Your task to perform on an android device: Open calendar and show me the third week of next month Image 0: 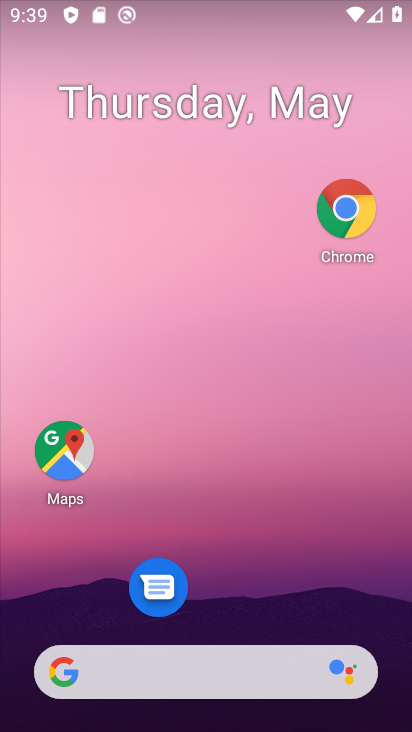
Step 0: drag from (242, 606) to (233, 27)
Your task to perform on an android device: Open calendar and show me the third week of next month Image 1: 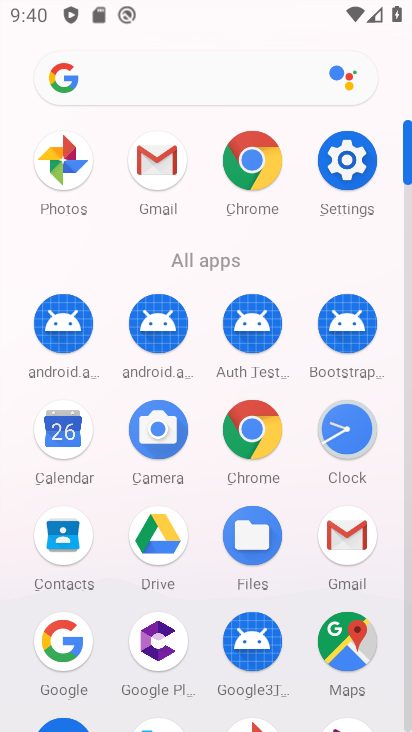
Step 1: click (61, 481)
Your task to perform on an android device: Open calendar and show me the third week of next month Image 2: 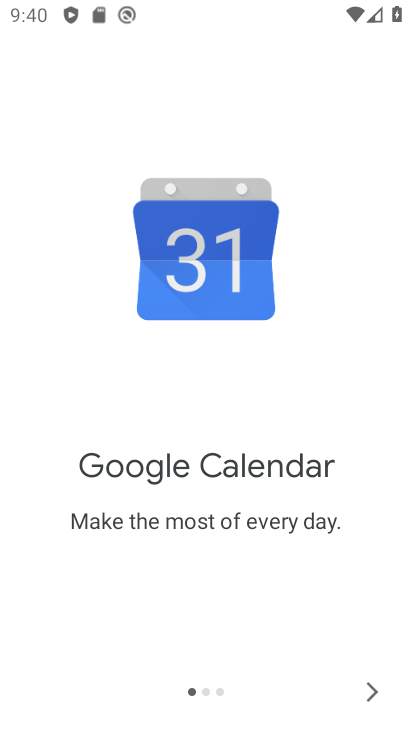
Step 2: click (376, 693)
Your task to perform on an android device: Open calendar and show me the third week of next month Image 3: 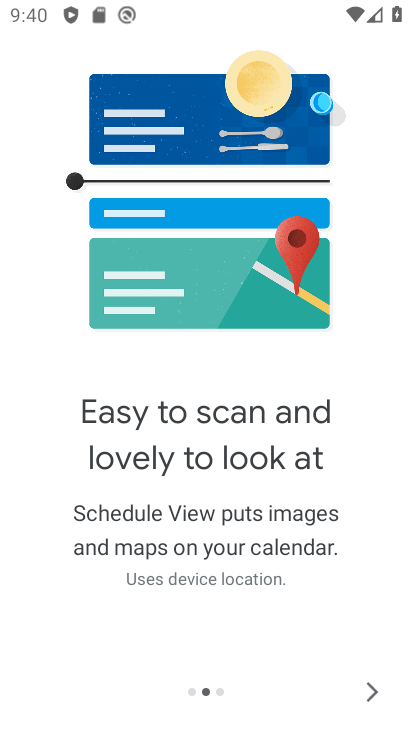
Step 3: click (376, 693)
Your task to perform on an android device: Open calendar and show me the third week of next month Image 4: 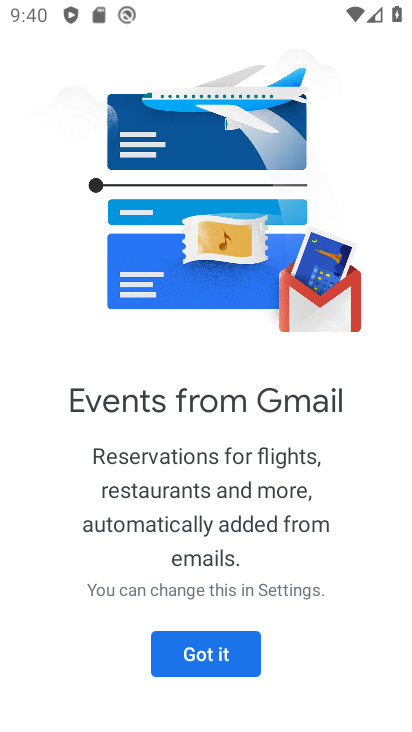
Step 4: click (215, 652)
Your task to perform on an android device: Open calendar and show me the third week of next month Image 5: 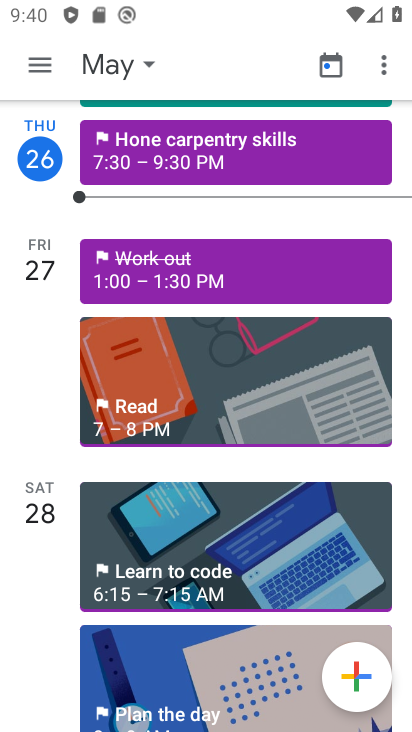
Step 5: click (44, 59)
Your task to perform on an android device: Open calendar and show me the third week of next month Image 6: 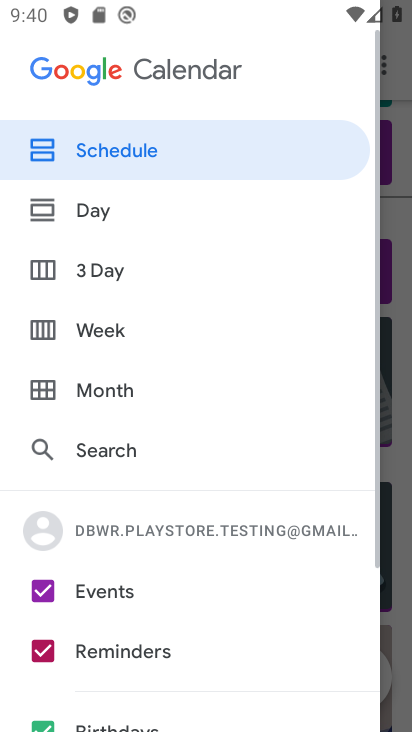
Step 6: click (96, 333)
Your task to perform on an android device: Open calendar and show me the third week of next month Image 7: 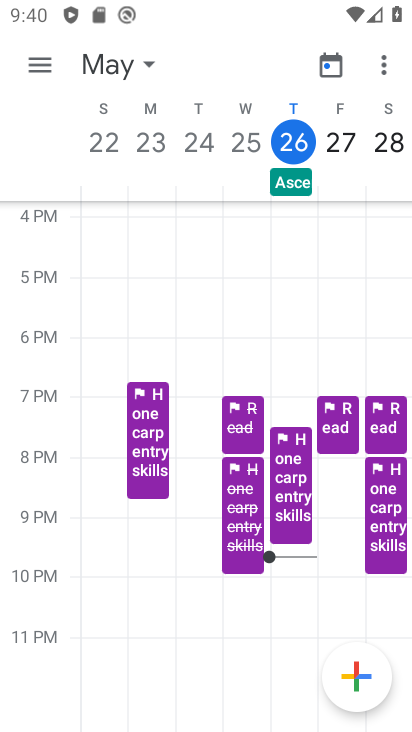
Step 7: click (117, 72)
Your task to perform on an android device: Open calendar and show me the third week of next month Image 8: 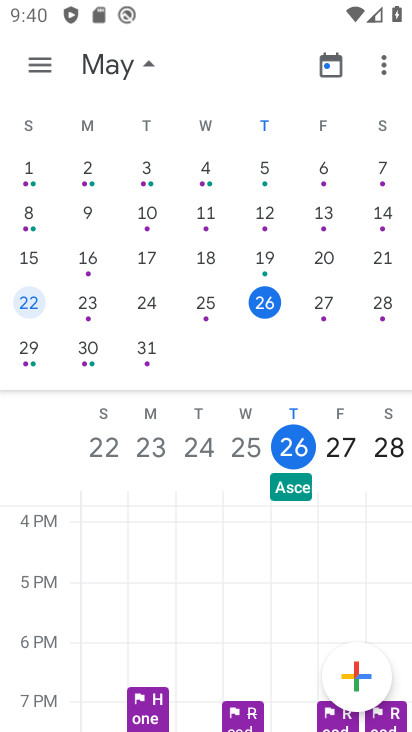
Step 8: drag from (334, 258) to (75, 238)
Your task to perform on an android device: Open calendar and show me the third week of next month Image 9: 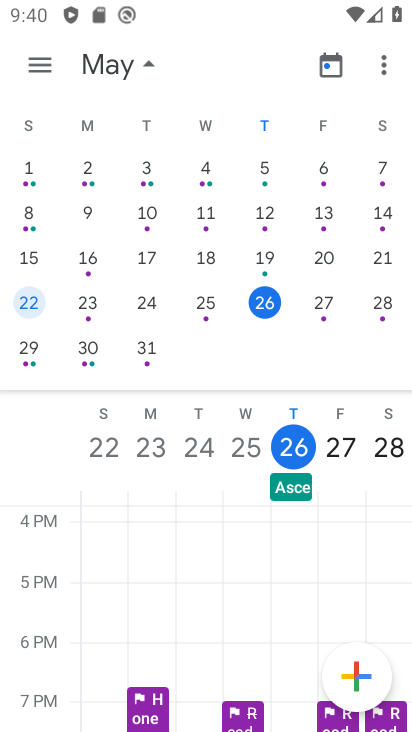
Step 9: click (27, 264)
Your task to perform on an android device: Open calendar and show me the third week of next month Image 10: 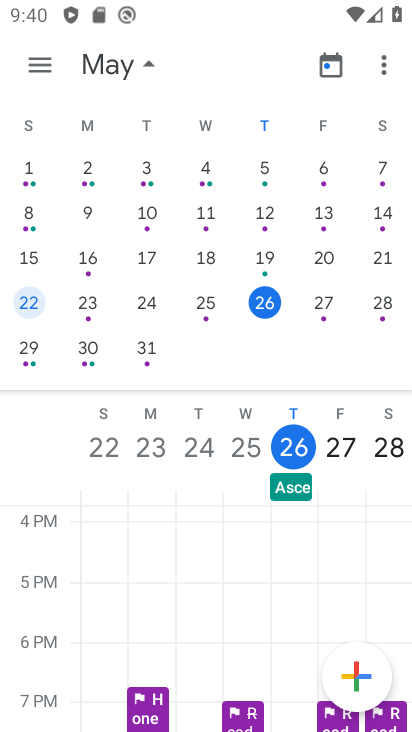
Step 10: click (26, 265)
Your task to perform on an android device: Open calendar and show me the third week of next month Image 11: 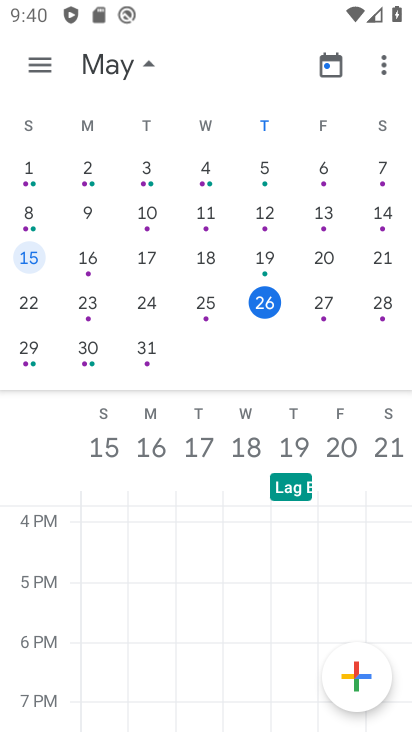
Step 11: task complete